Your task to perform on an android device: Open Amazon Image 0: 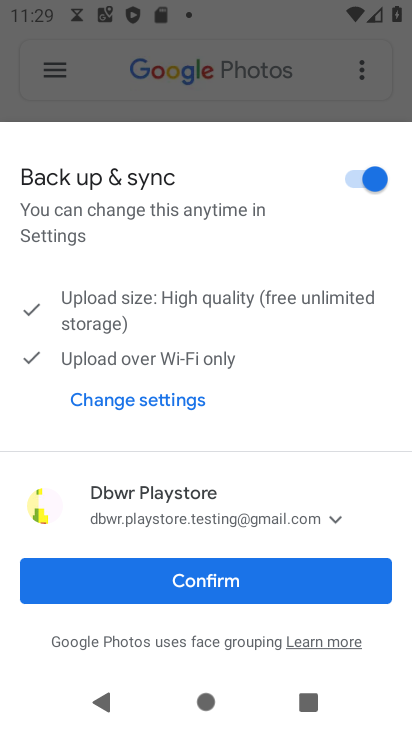
Step 0: press home button
Your task to perform on an android device: Open Amazon Image 1: 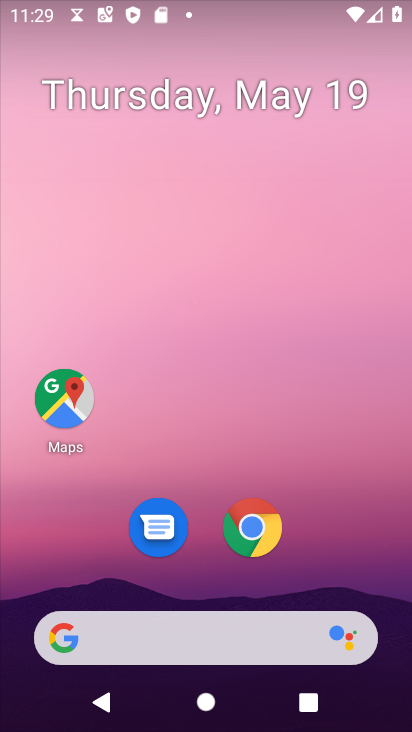
Step 1: click (241, 546)
Your task to perform on an android device: Open Amazon Image 2: 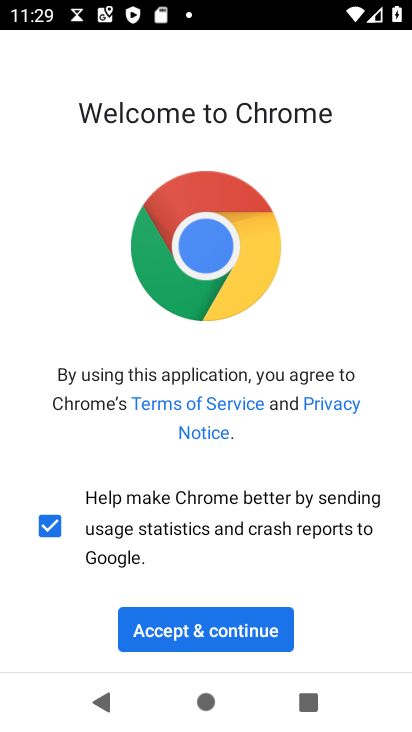
Step 2: click (248, 628)
Your task to perform on an android device: Open Amazon Image 3: 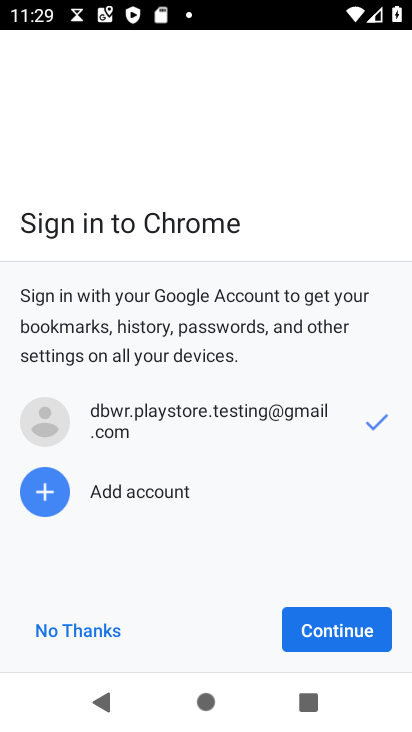
Step 3: click (316, 629)
Your task to perform on an android device: Open Amazon Image 4: 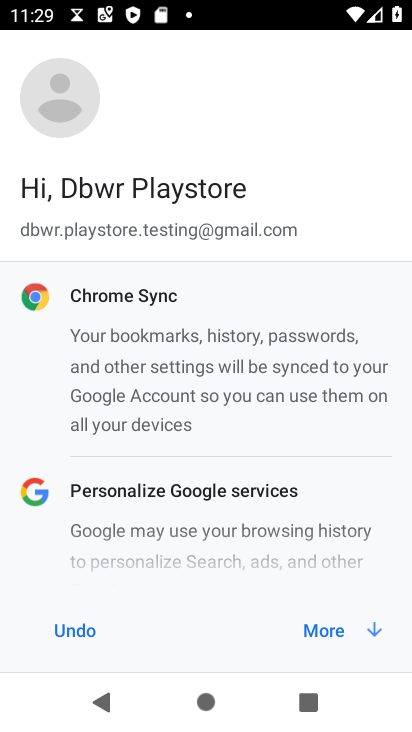
Step 4: click (310, 627)
Your task to perform on an android device: Open Amazon Image 5: 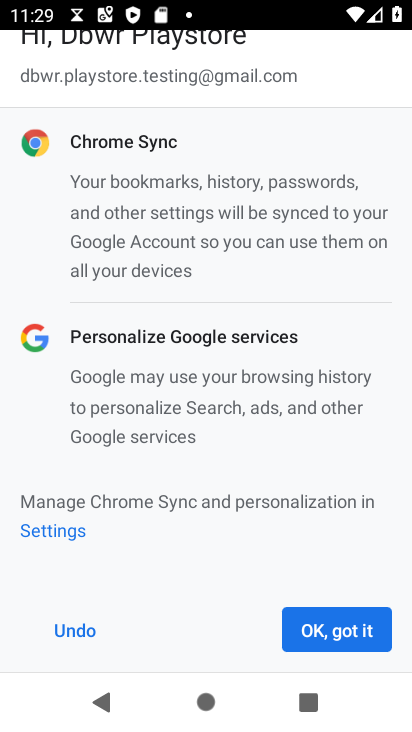
Step 5: click (310, 627)
Your task to perform on an android device: Open Amazon Image 6: 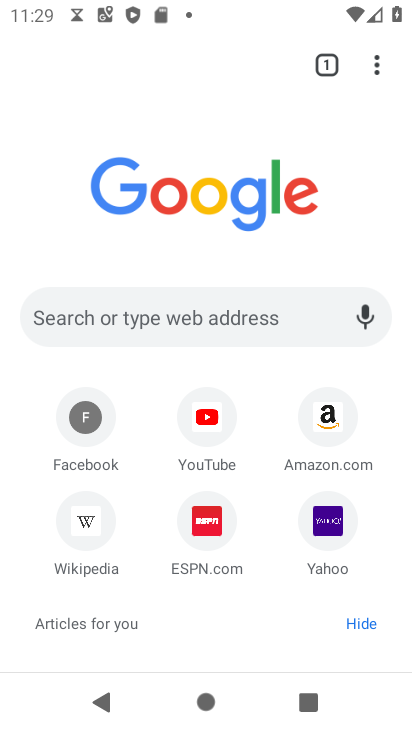
Step 6: click (335, 406)
Your task to perform on an android device: Open Amazon Image 7: 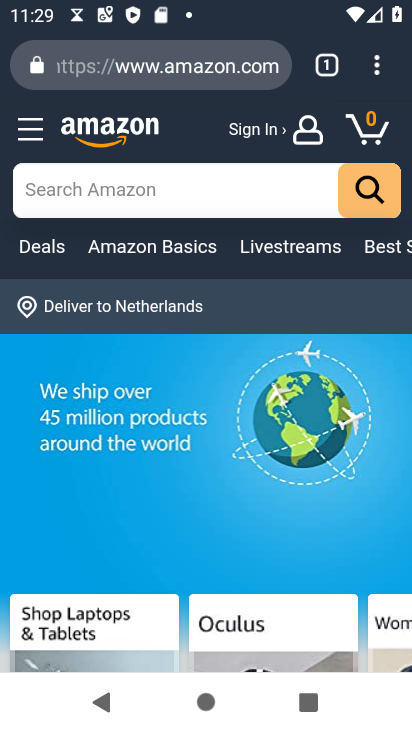
Step 7: task complete